Your task to perform on an android device: manage bookmarks in the chrome app Image 0: 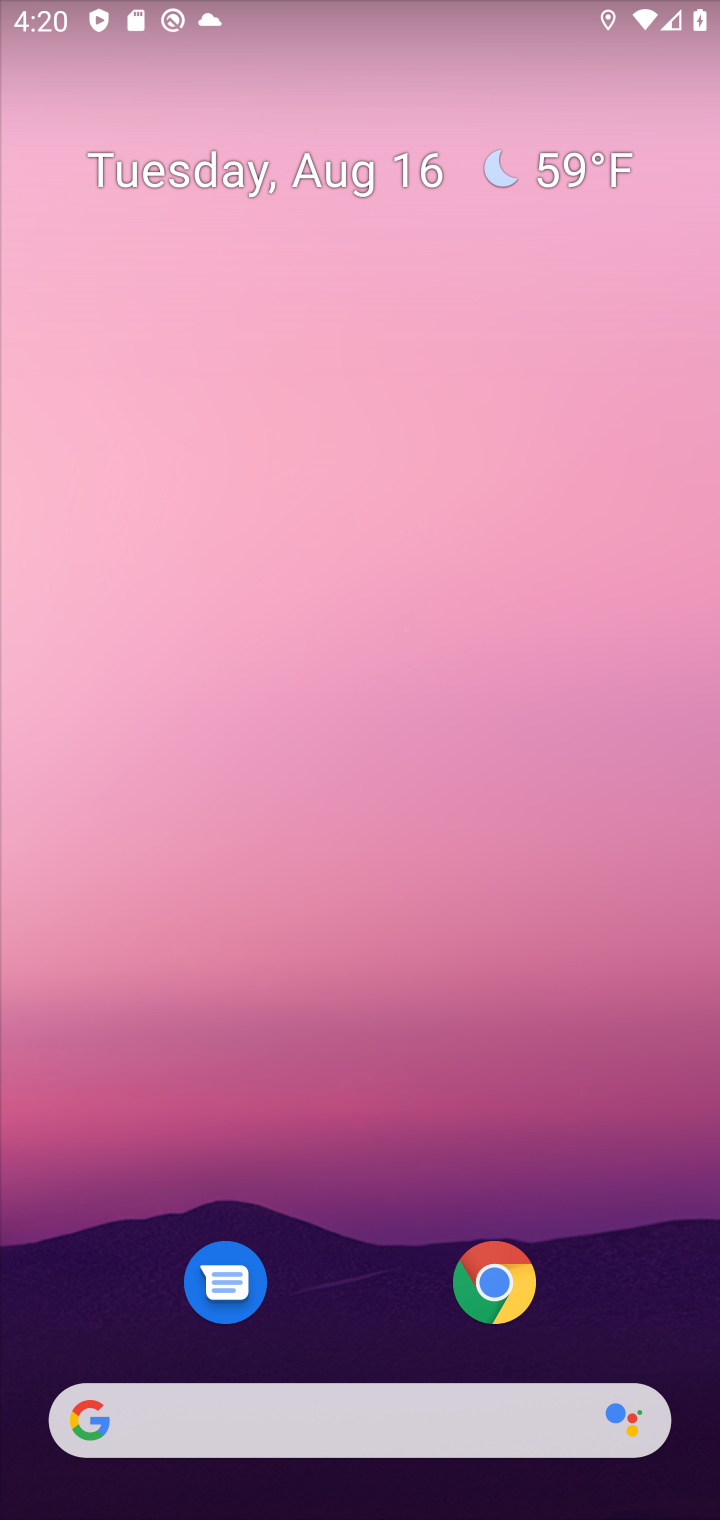
Step 0: click (478, 1294)
Your task to perform on an android device: manage bookmarks in the chrome app Image 1: 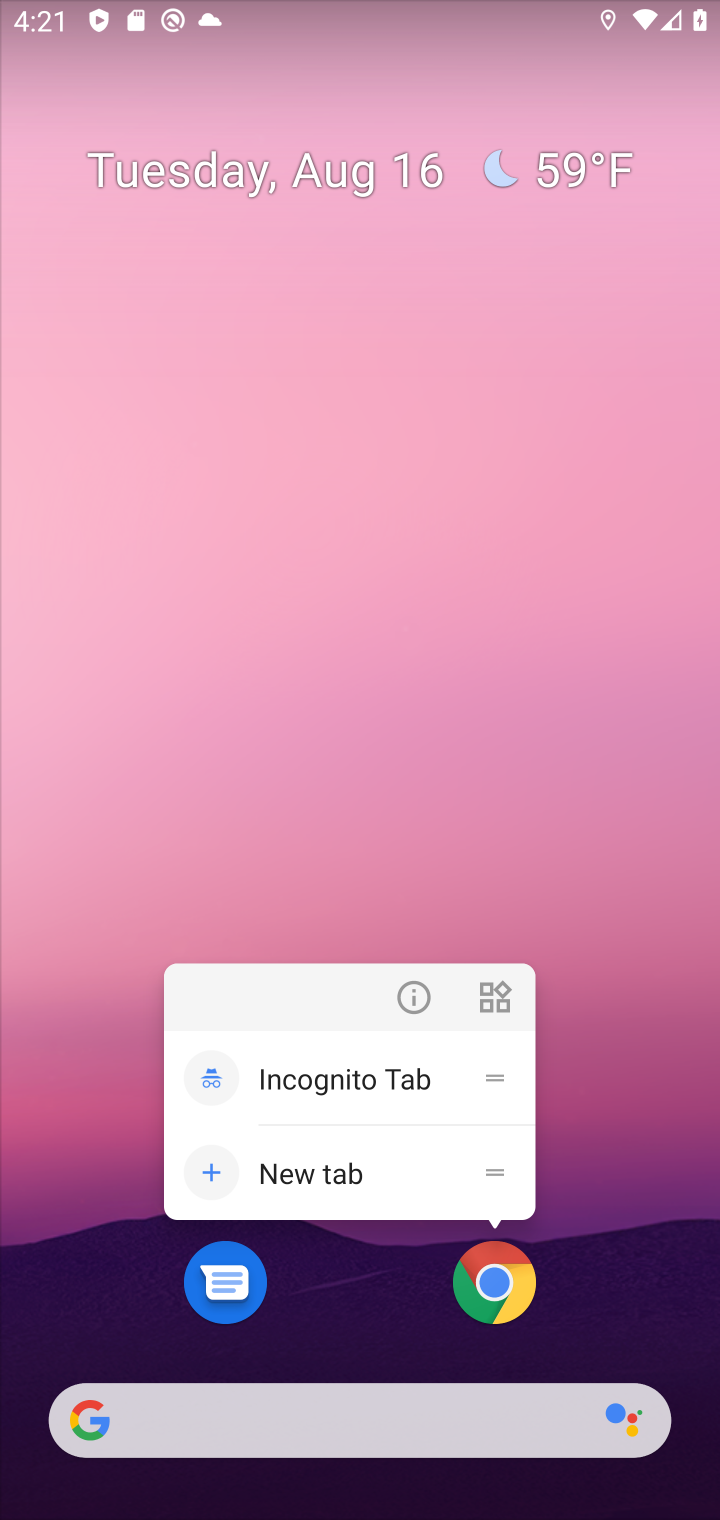
Step 1: click (507, 1271)
Your task to perform on an android device: manage bookmarks in the chrome app Image 2: 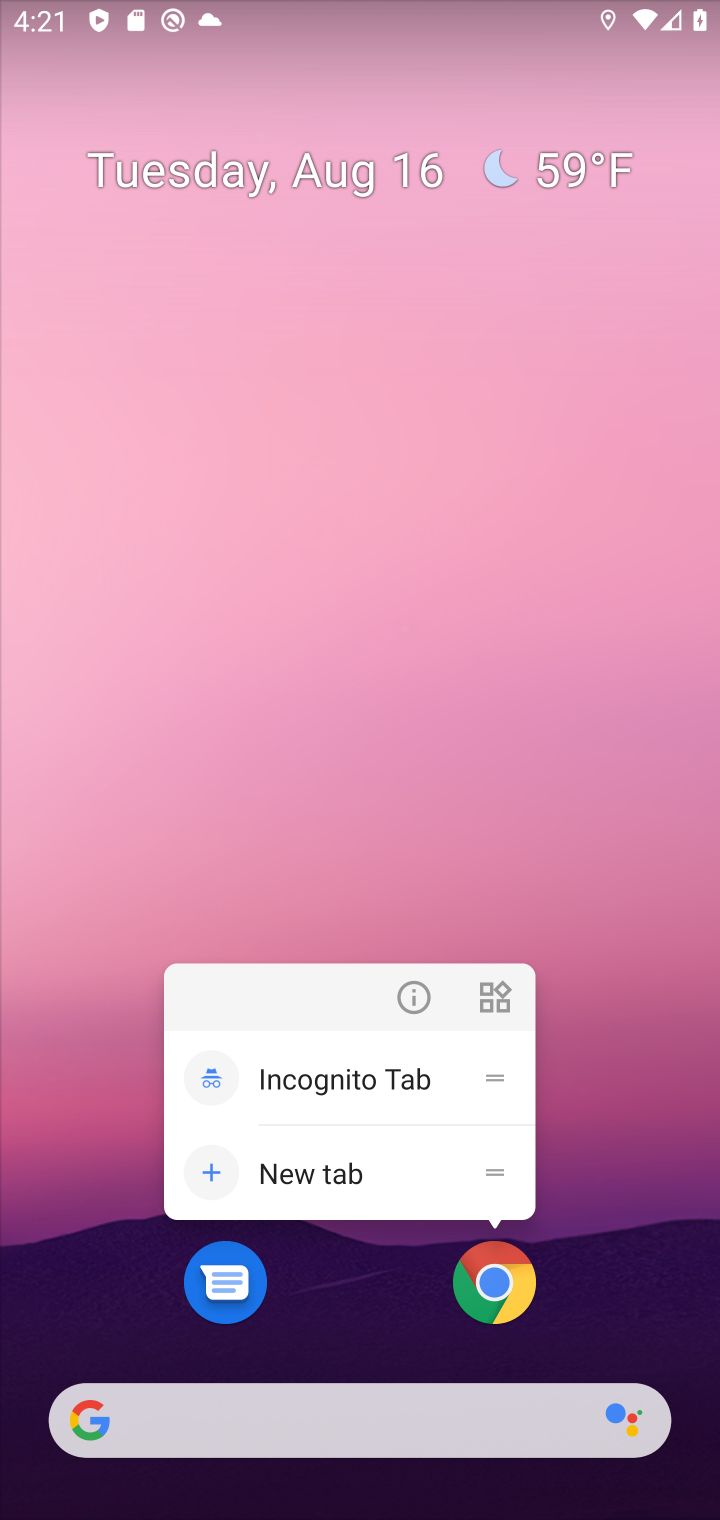
Step 2: click (481, 1286)
Your task to perform on an android device: manage bookmarks in the chrome app Image 3: 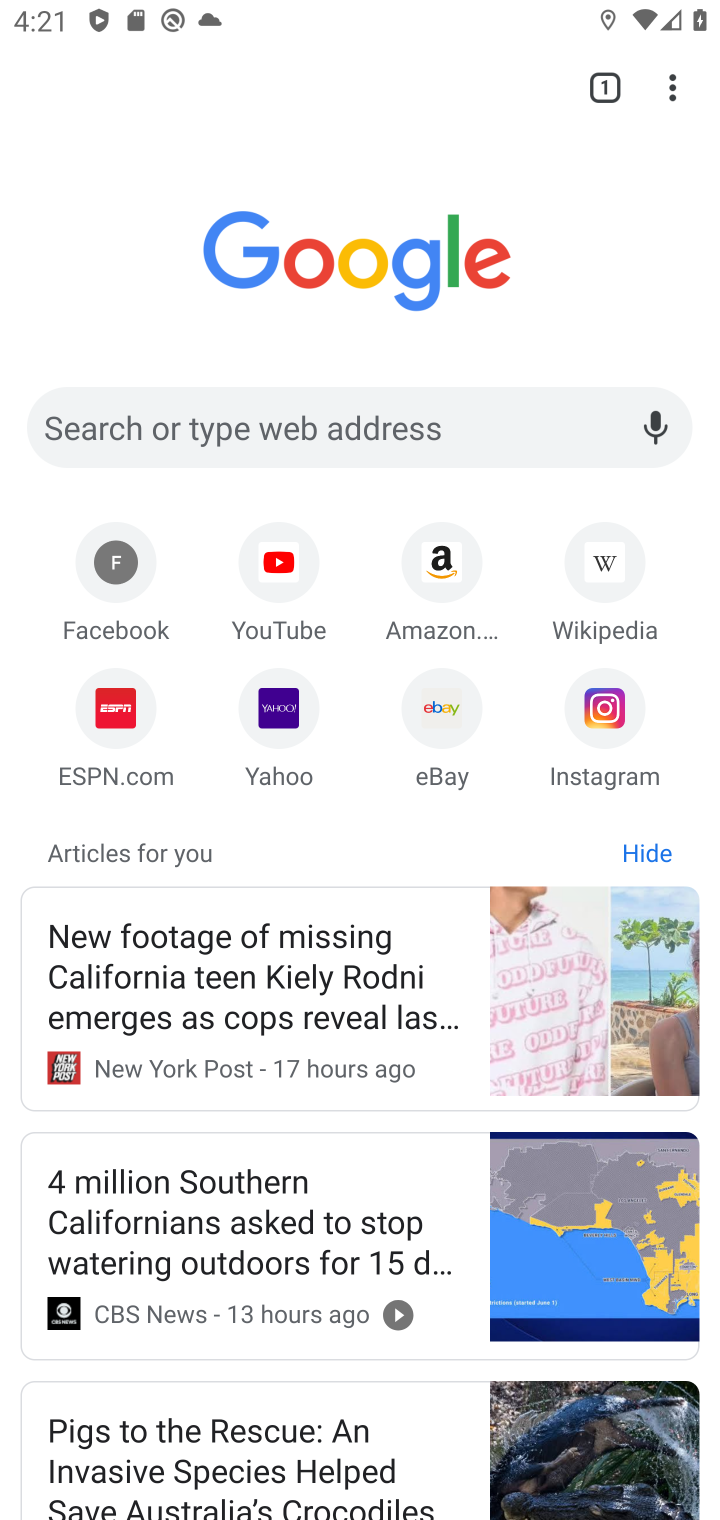
Step 3: drag from (680, 72) to (447, 321)
Your task to perform on an android device: manage bookmarks in the chrome app Image 4: 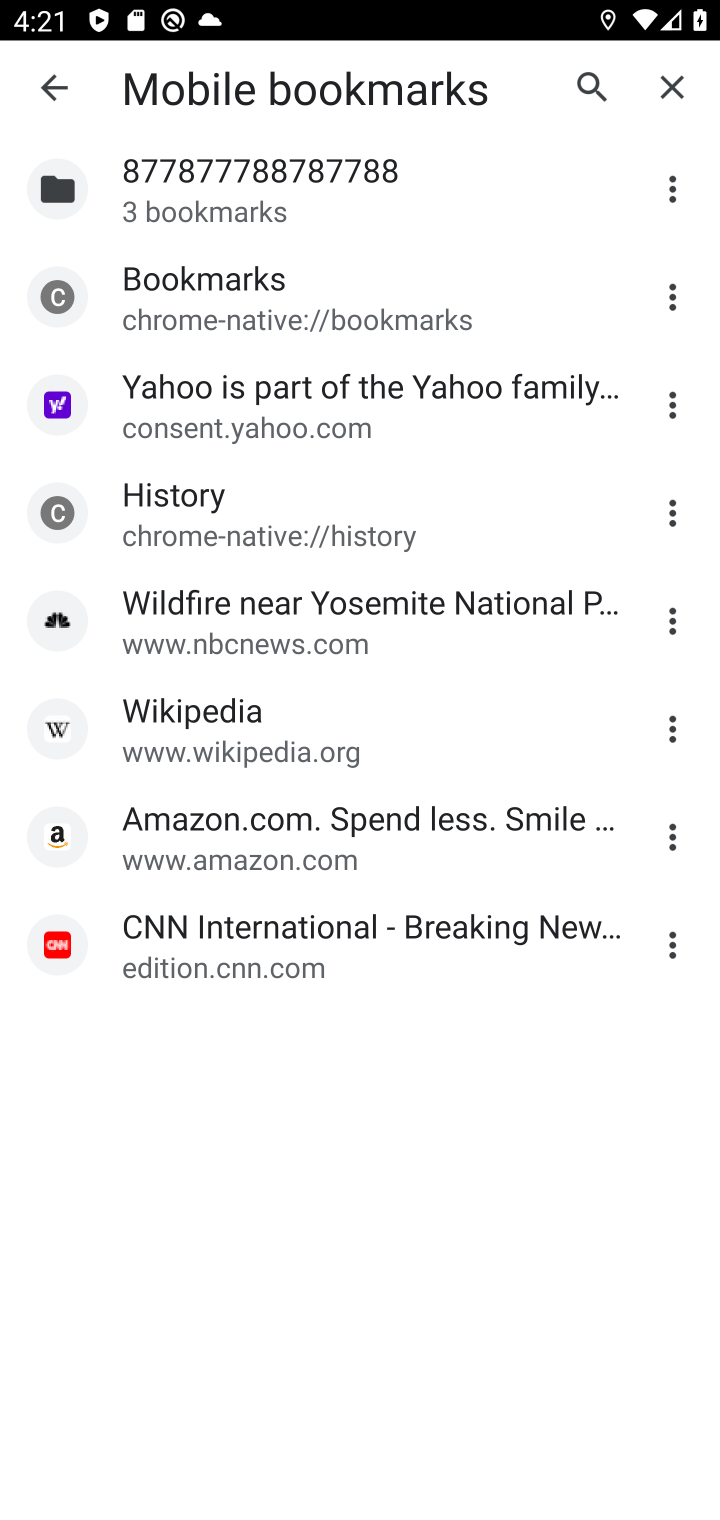
Step 4: click (685, 411)
Your task to perform on an android device: manage bookmarks in the chrome app Image 5: 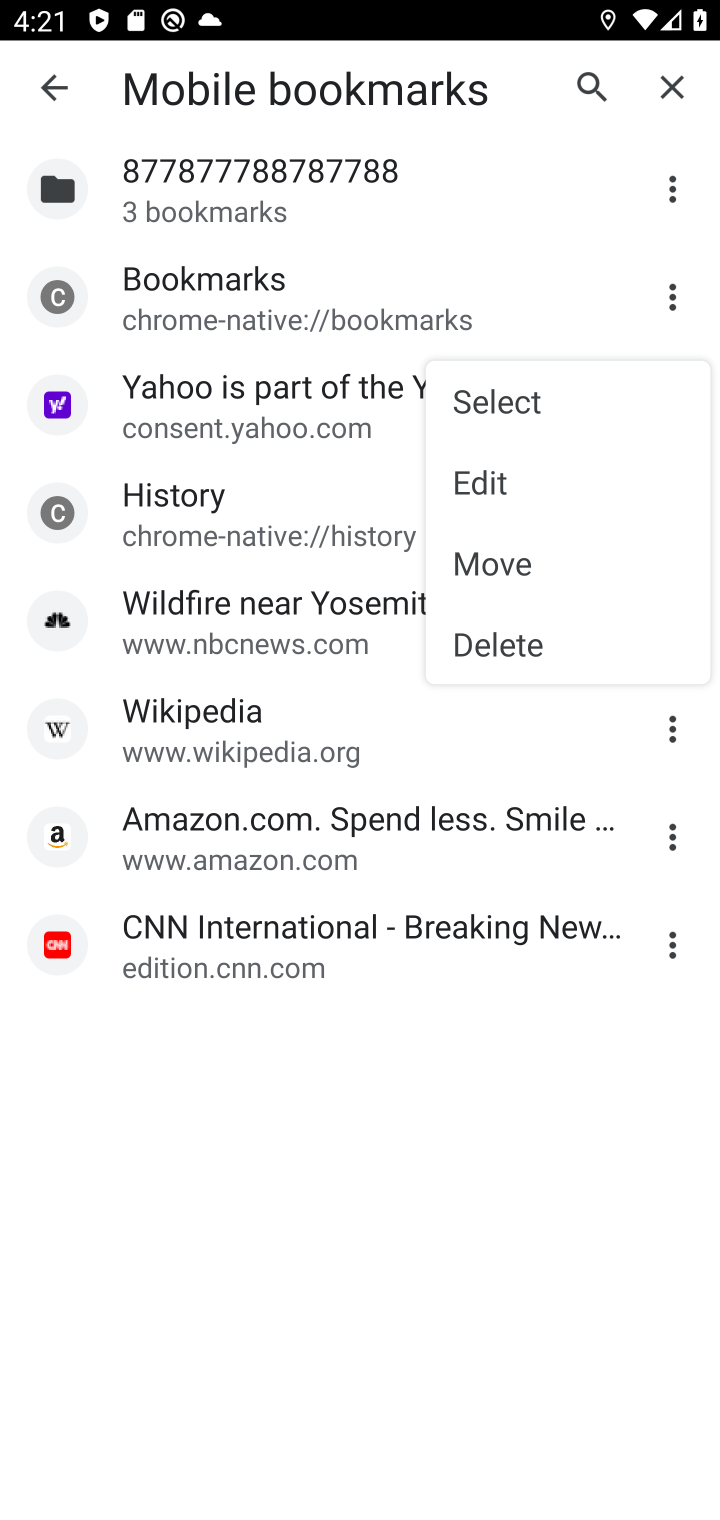
Step 5: click (526, 650)
Your task to perform on an android device: manage bookmarks in the chrome app Image 6: 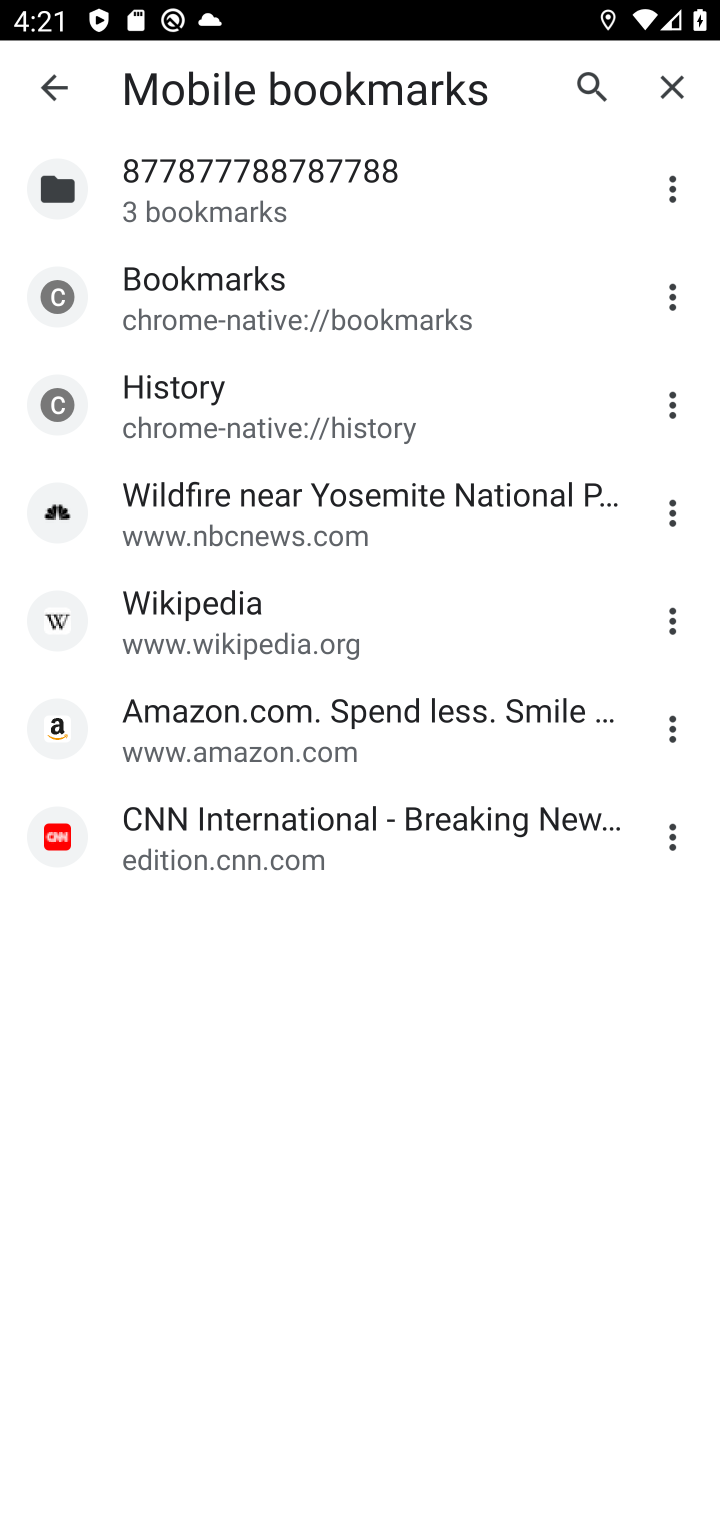
Step 6: task complete